Your task to perform on an android device: toggle notifications settings in the gmail app Image 0: 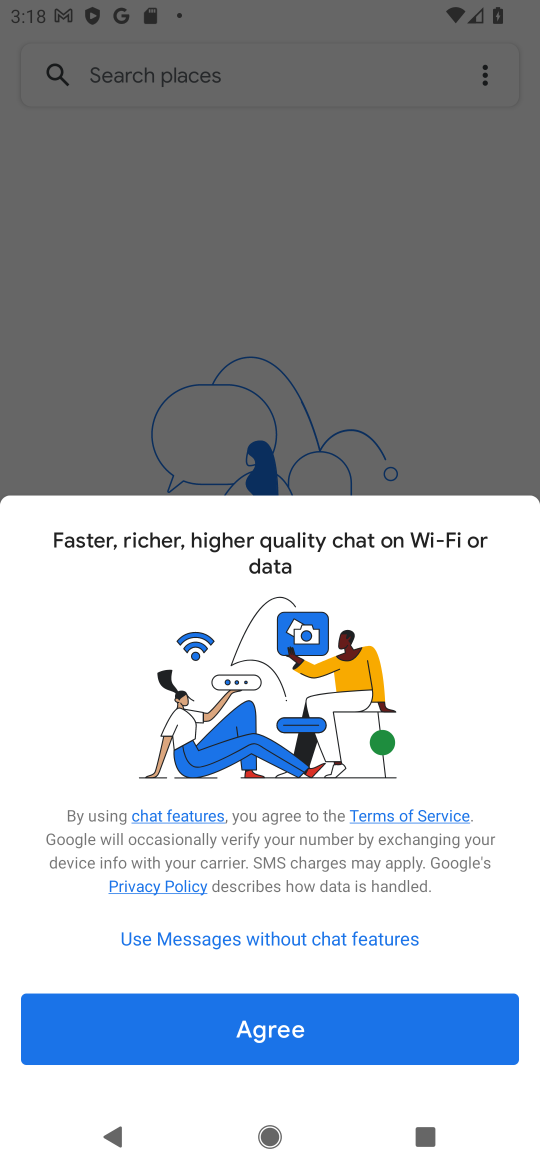
Step 0: press home button
Your task to perform on an android device: toggle notifications settings in the gmail app Image 1: 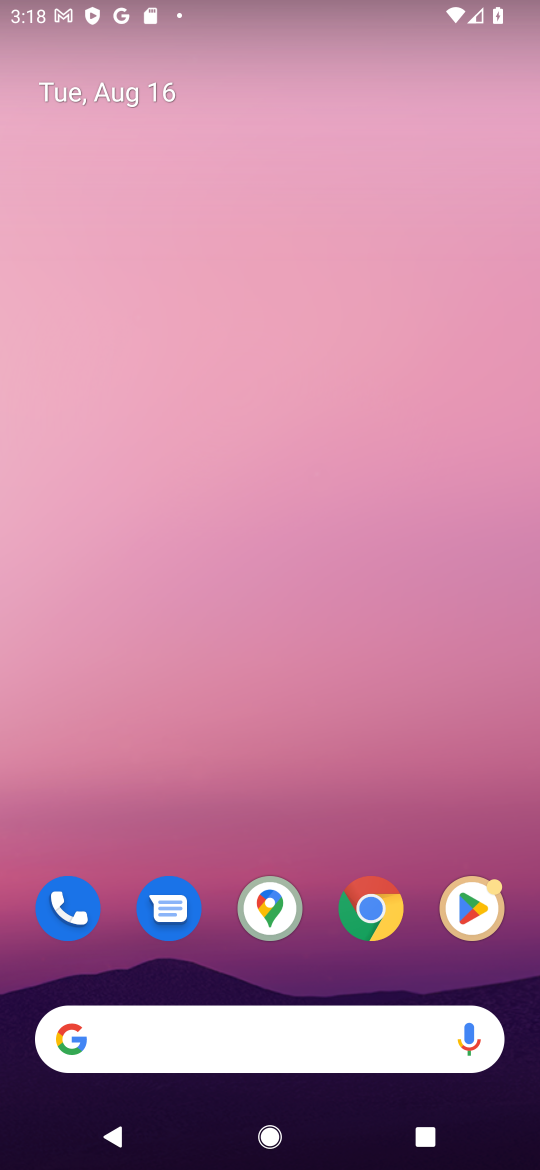
Step 1: drag from (270, 931) to (355, 153)
Your task to perform on an android device: toggle notifications settings in the gmail app Image 2: 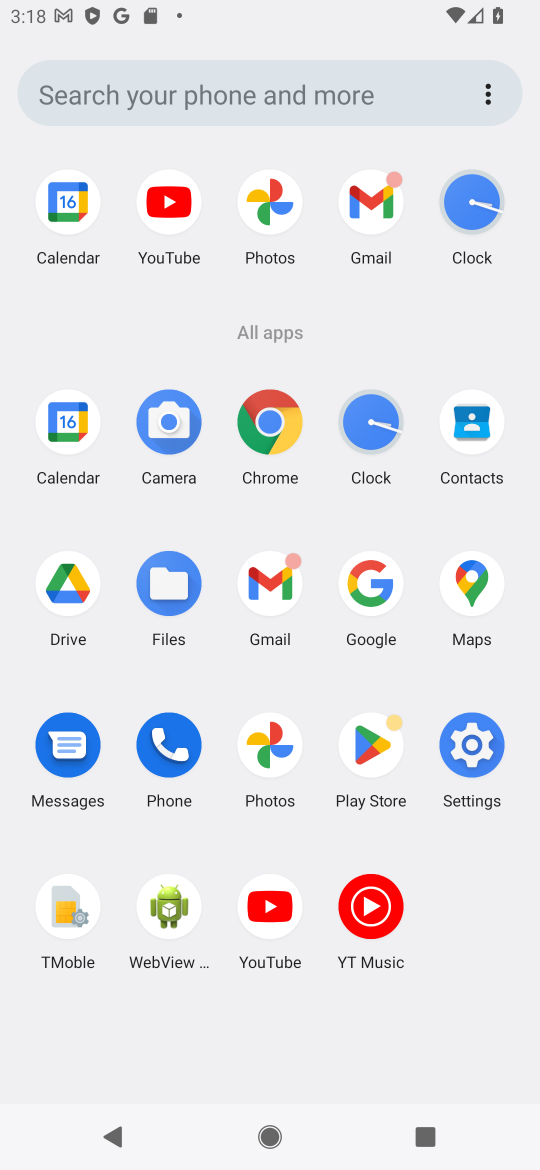
Step 2: click (377, 197)
Your task to perform on an android device: toggle notifications settings in the gmail app Image 3: 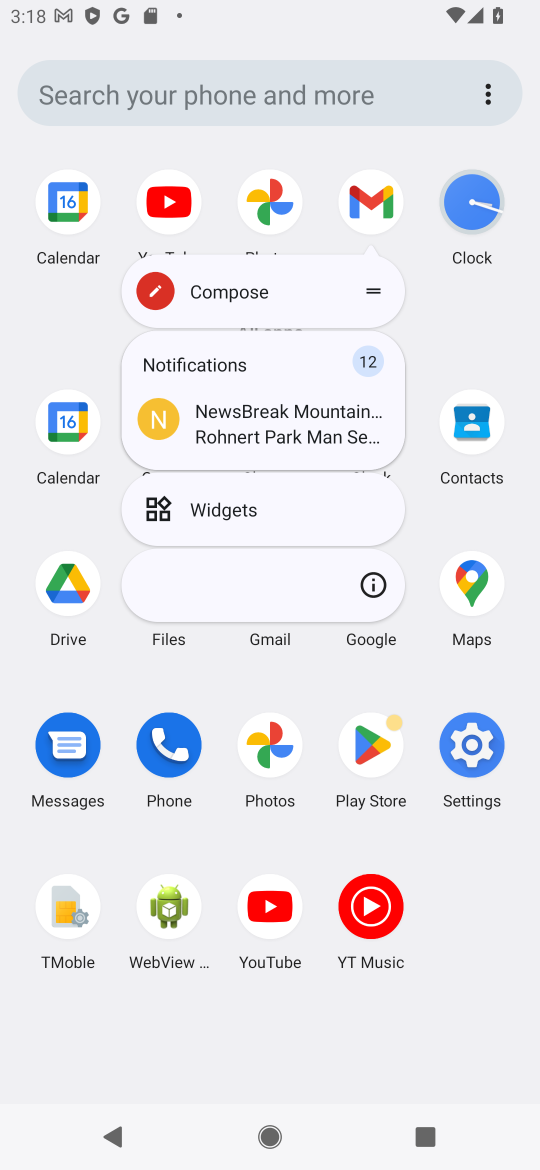
Step 3: click (372, 588)
Your task to perform on an android device: toggle notifications settings in the gmail app Image 4: 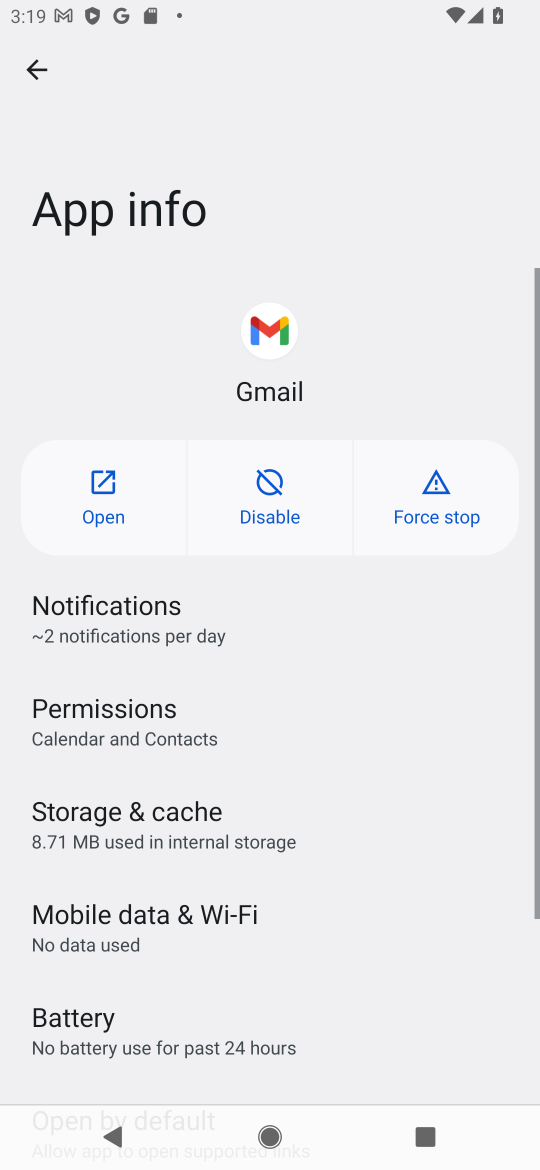
Step 4: click (173, 633)
Your task to perform on an android device: toggle notifications settings in the gmail app Image 5: 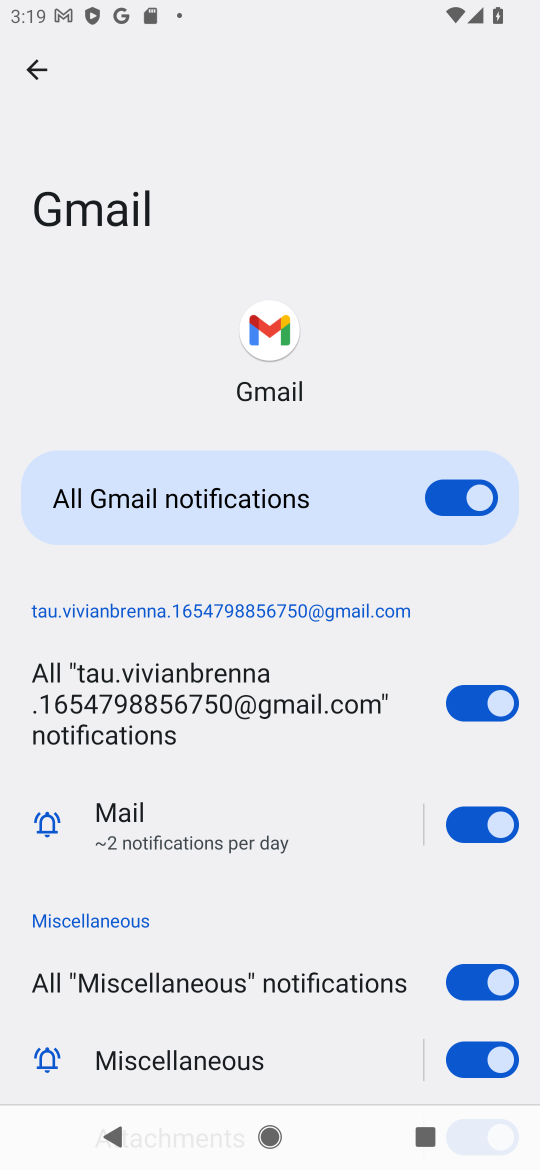
Step 5: click (448, 502)
Your task to perform on an android device: toggle notifications settings in the gmail app Image 6: 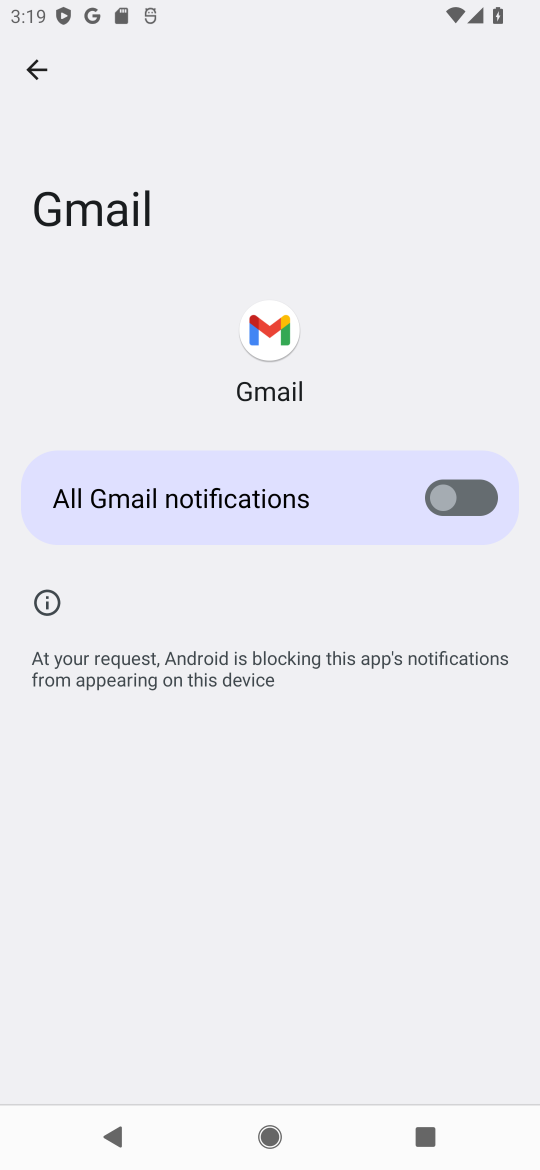
Step 6: task complete